Your task to perform on an android device: Open Android settings Image 0: 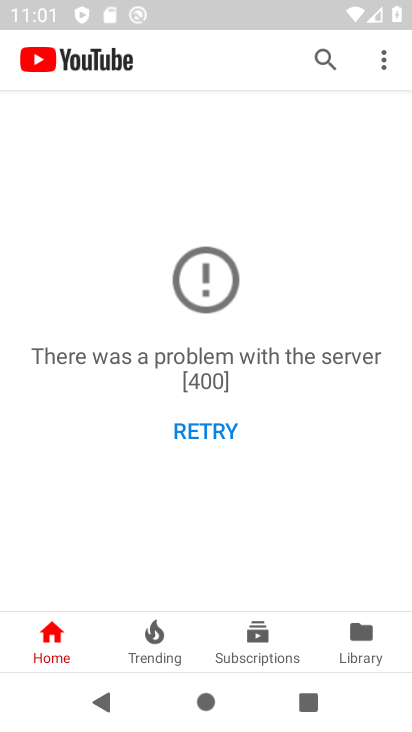
Step 0: press home button
Your task to perform on an android device: Open Android settings Image 1: 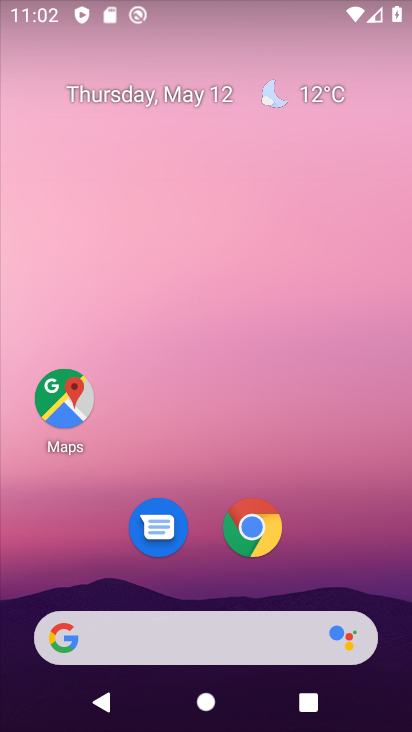
Step 1: drag from (26, 607) to (319, 75)
Your task to perform on an android device: Open Android settings Image 2: 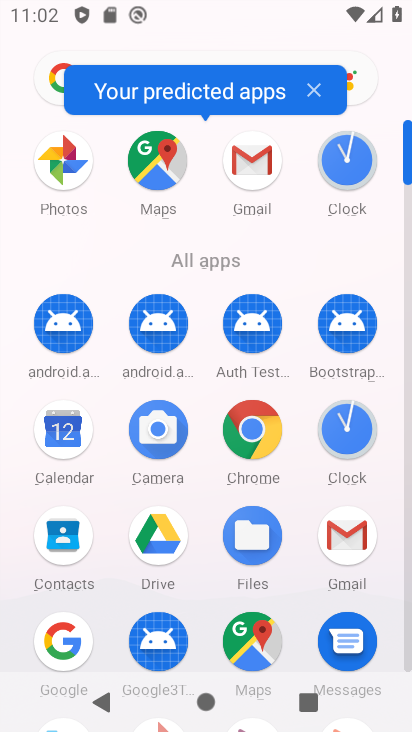
Step 2: drag from (202, 546) to (364, 125)
Your task to perform on an android device: Open Android settings Image 3: 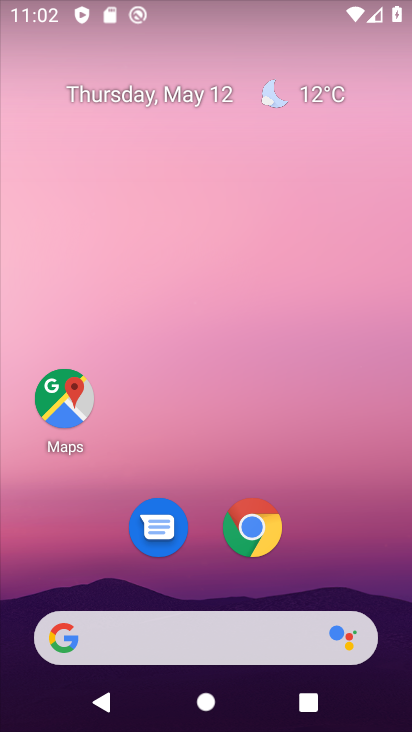
Step 3: press home button
Your task to perform on an android device: Open Android settings Image 4: 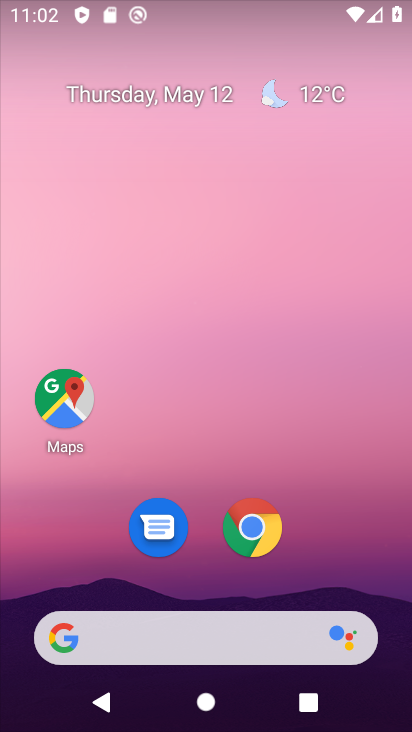
Step 4: drag from (8, 719) to (216, 216)
Your task to perform on an android device: Open Android settings Image 5: 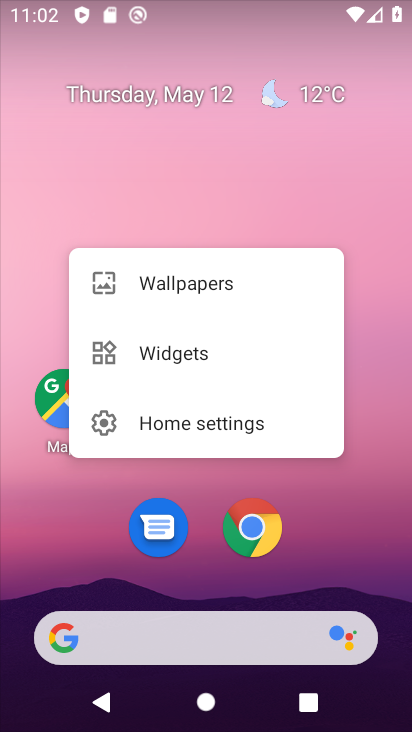
Step 5: press back button
Your task to perform on an android device: Open Android settings Image 6: 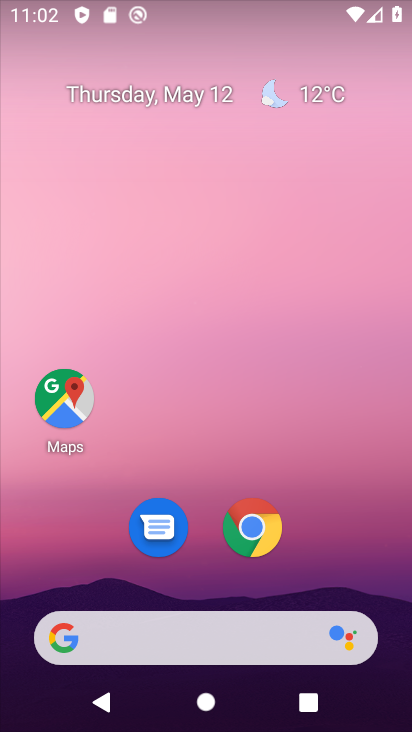
Step 6: drag from (2, 728) to (185, 182)
Your task to perform on an android device: Open Android settings Image 7: 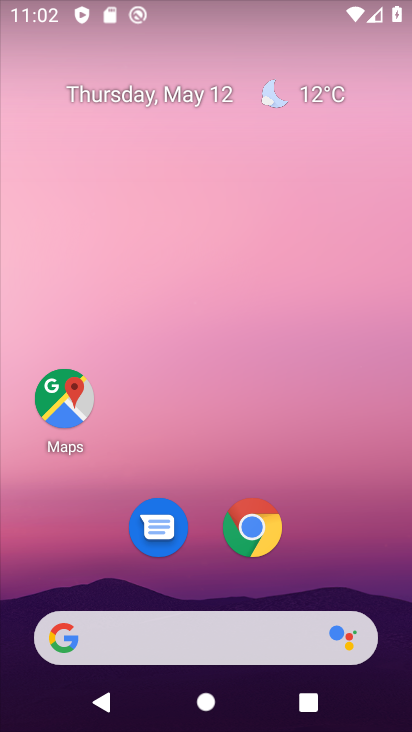
Step 7: drag from (92, 477) to (314, 85)
Your task to perform on an android device: Open Android settings Image 8: 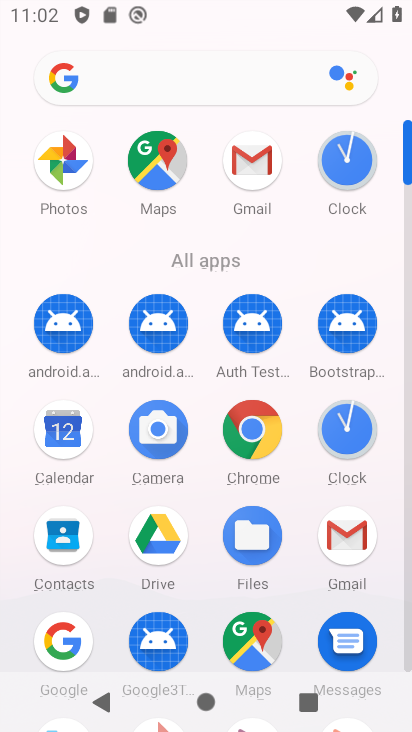
Step 8: drag from (44, 564) to (342, 84)
Your task to perform on an android device: Open Android settings Image 9: 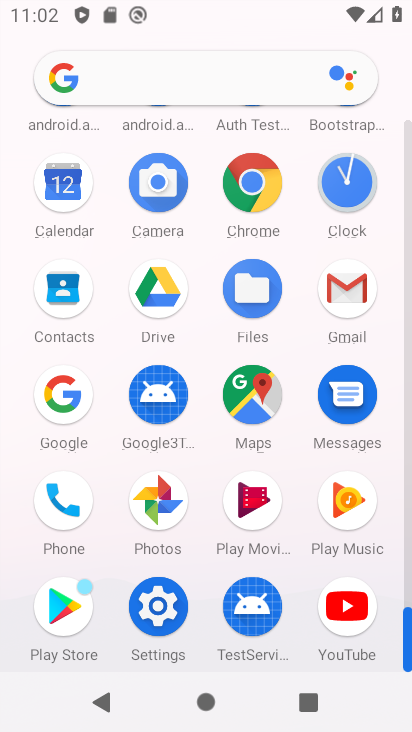
Step 9: click (145, 591)
Your task to perform on an android device: Open Android settings Image 10: 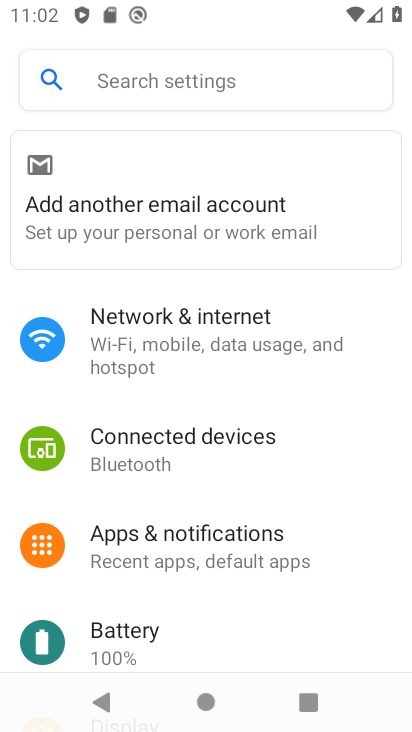
Step 10: drag from (22, 619) to (281, 87)
Your task to perform on an android device: Open Android settings Image 11: 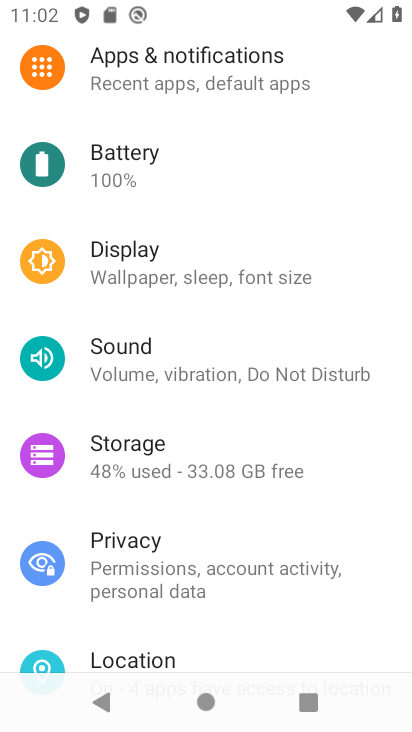
Step 11: drag from (3, 643) to (257, 203)
Your task to perform on an android device: Open Android settings Image 12: 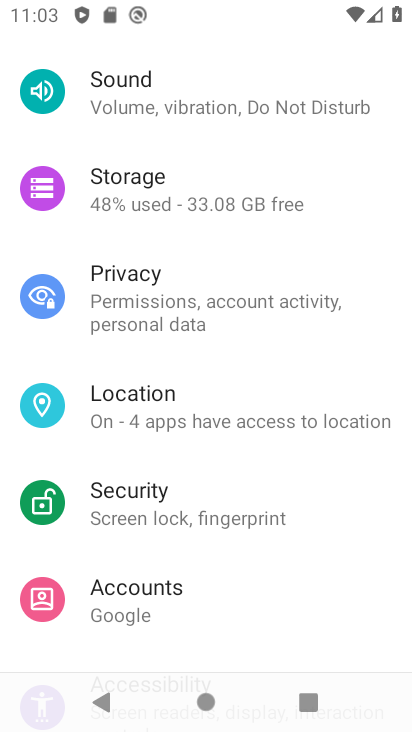
Step 12: drag from (9, 556) to (216, 136)
Your task to perform on an android device: Open Android settings Image 13: 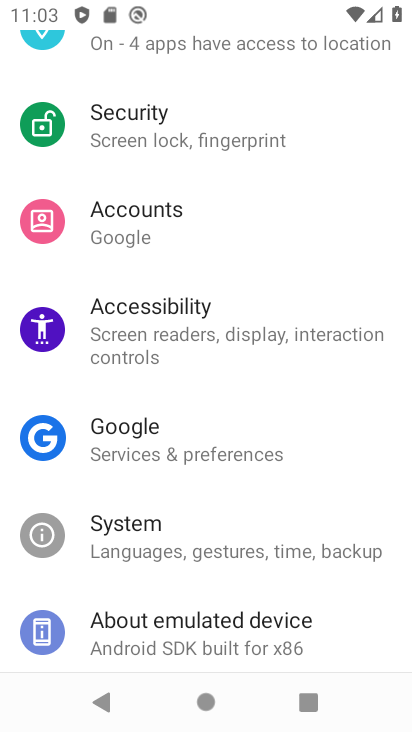
Step 13: click (102, 606)
Your task to perform on an android device: Open Android settings Image 14: 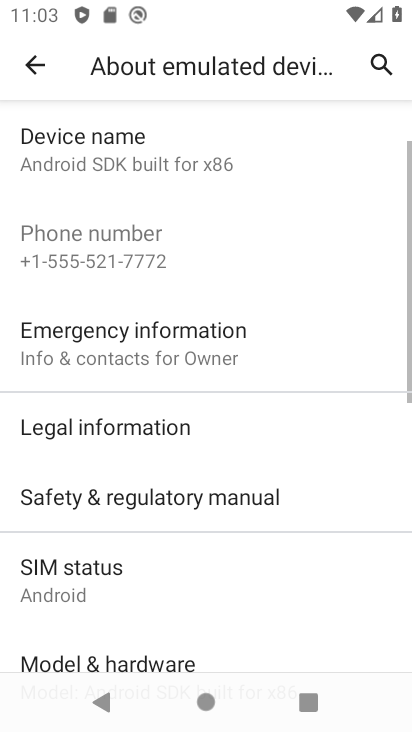
Step 14: drag from (28, 608) to (299, 194)
Your task to perform on an android device: Open Android settings Image 15: 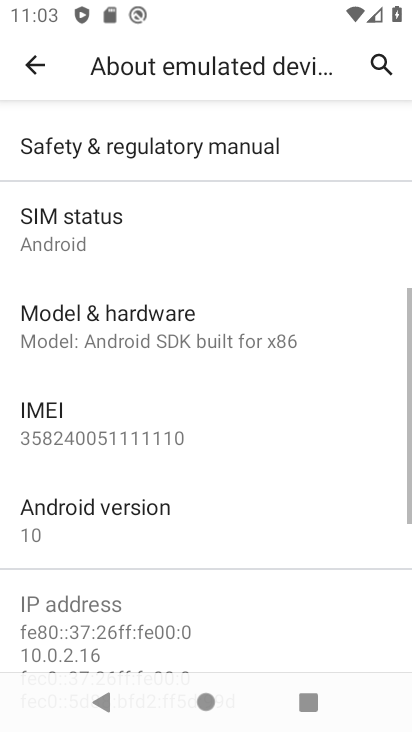
Step 15: click (206, 509)
Your task to perform on an android device: Open Android settings Image 16: 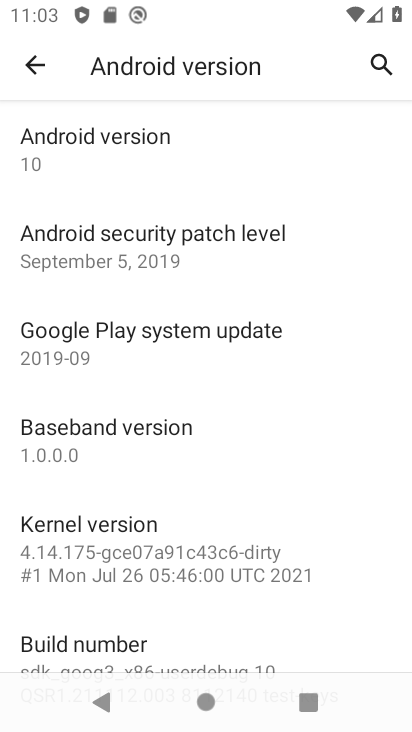
Step 16: task complete